Your task to perform on an android device: Open internet settings Image 0: 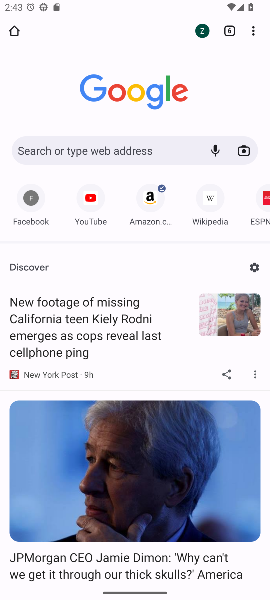
Step 0: press home button
Your task to perform on an android device: Open internet settings Image 1: 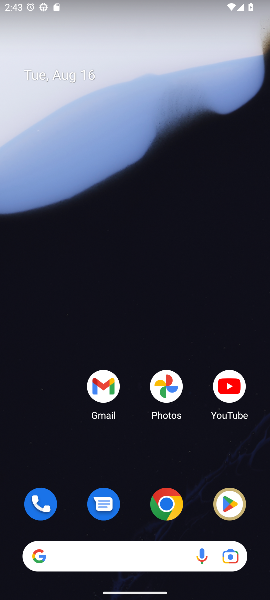
Step 1: drag from (130, 472) to (126, 113)
Your task to perform on an android device: Open internet settings Image 2: 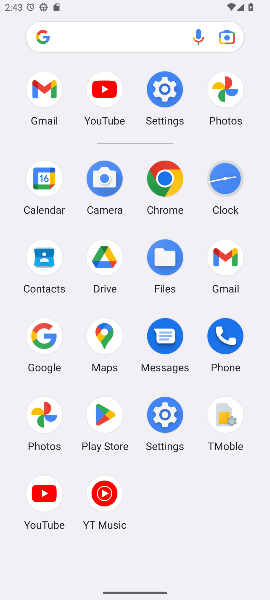
Step 2: click (163, 86)
Your task to perform on an android device: Open internet settings Image 3: 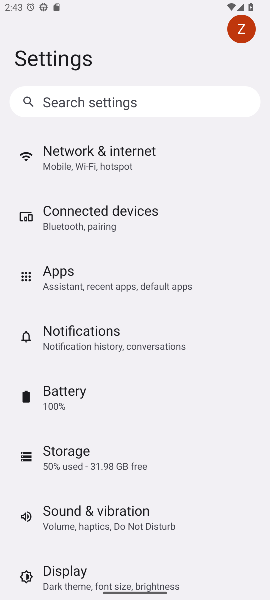
Step 3: click (108, 149)
Your task to perform on an android device: Open internet settings Image 4: 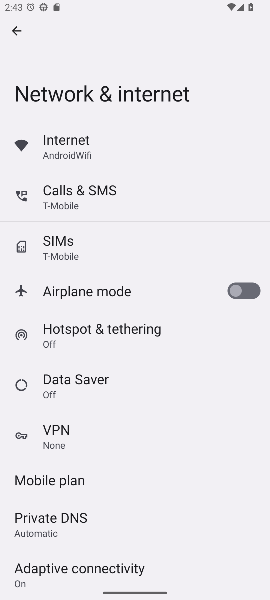
Step 4: click (59, 138)
Your task to perform on an android device: Open internet settings Image 5: 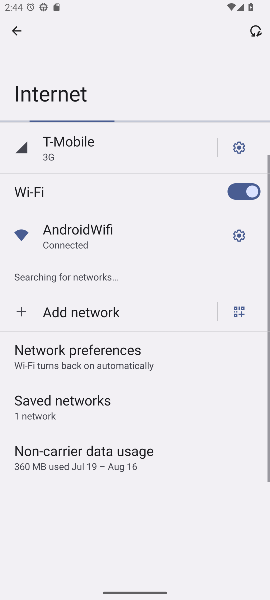
Step 5: task complete